Your task to perform on an android device: turn smart compose on in the gmail app Image 0: 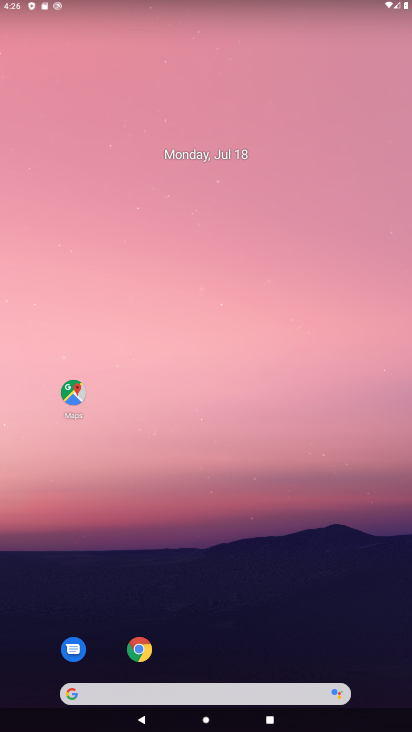
Step 0: drag from (208, 665) to (219, 146)
Your task to perform on an android device: turn smart compose on in the gmail app Image 1: 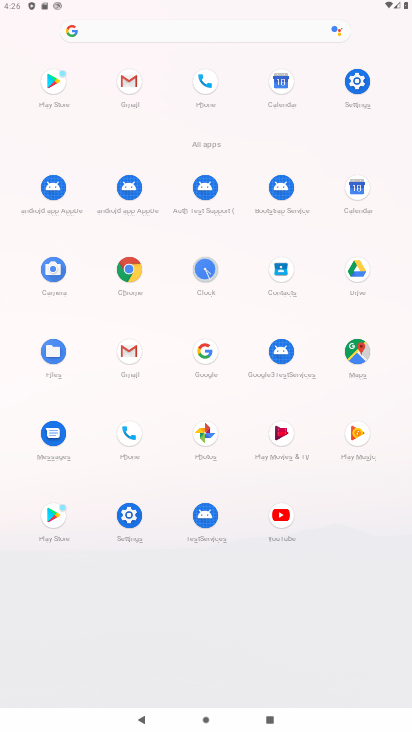
Step 1: click (133, 361)
Your task to perform on an android device: turn smart compose on in the gmail app Image 2: 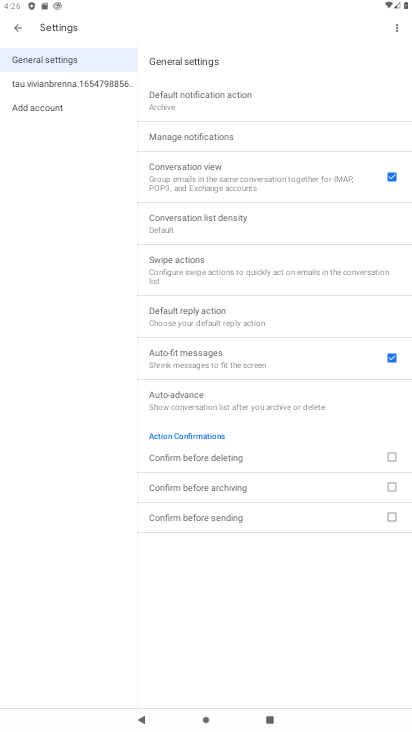
Step 2: click (78, 83)
Your task to perform on an android device: turn smart compose on in the gmail app Image 3: 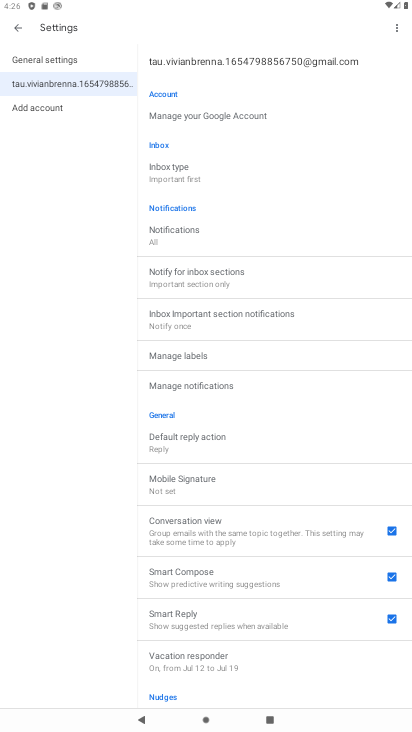
Step 3: task complete